Your task to perform on an android device: Turn off the flashlight Image 0: 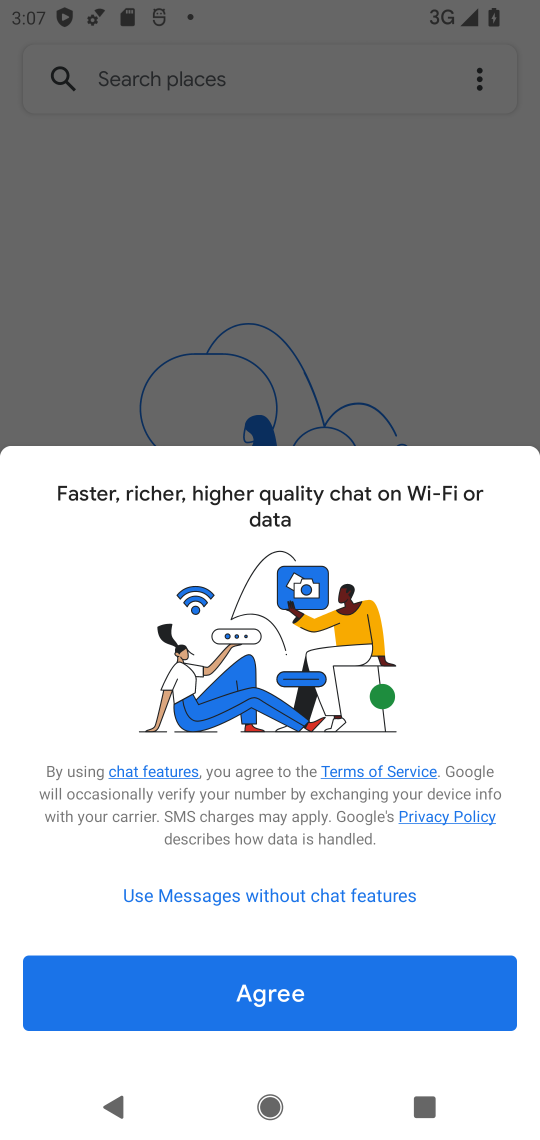
Step 0: press home button
Your task to perform on an android device: Turn off the flashlight Image 1: 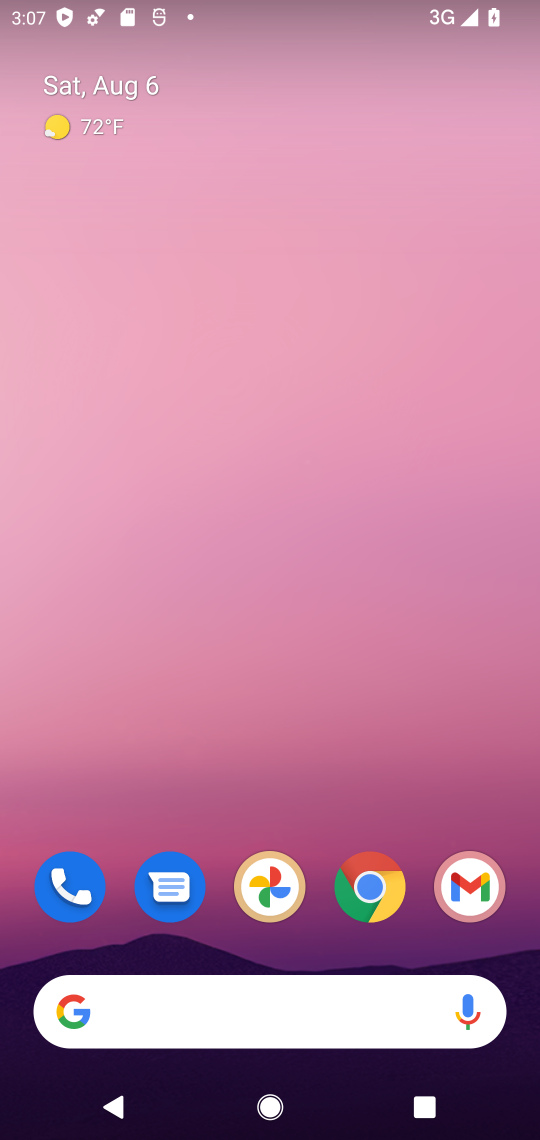
Step 1: task complete